Your task to perform on an android device: Search for seafood restaurants on Google Maps Image 0: 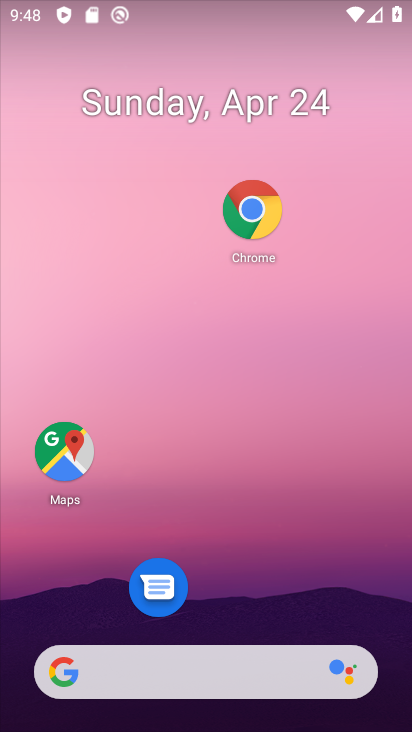
Step 0: drag from (208, 599) to (167, 135)
Your task to perform on an android device: Search for seafood restaurants on Google Maps Image 1: 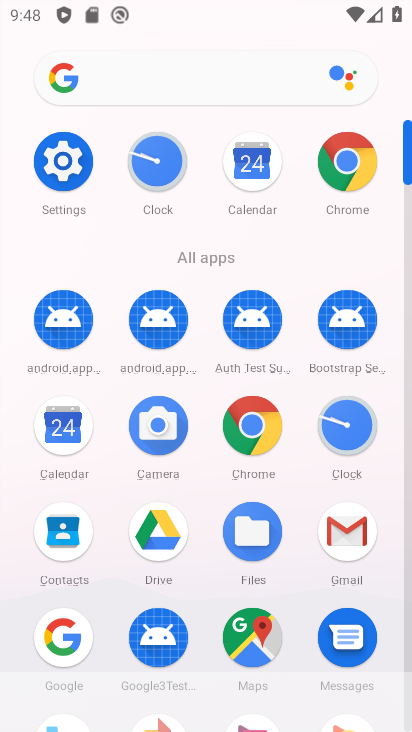
Step 1: click (251, 633)
Your task to perform on an android device: Search for seafood restaurants on Google Maps Image 2: 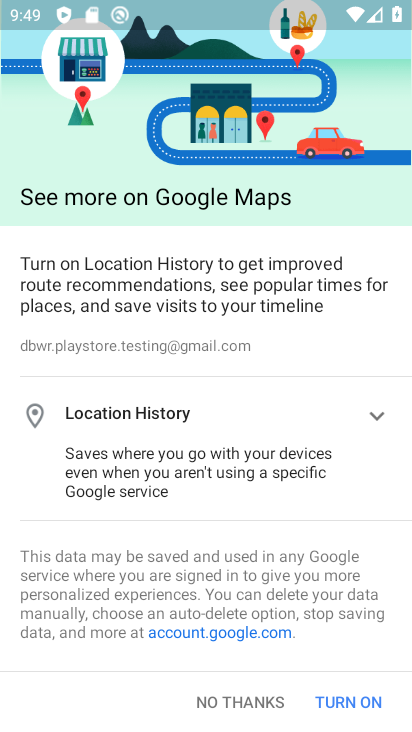
Step 2: click (342, 700)
Your task to perform on an android device: Search for seafood restaurants on Google Maps Image 3: 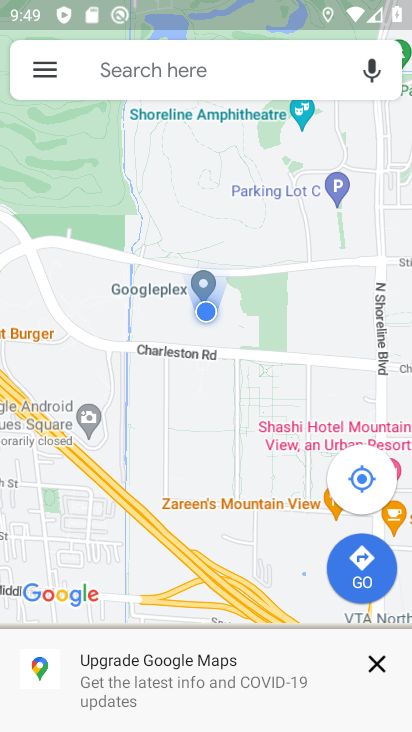
Step 3: click (118, 54)
Your task to perform on an android device: Search for seafood restaurants on Google Maps Image 4: 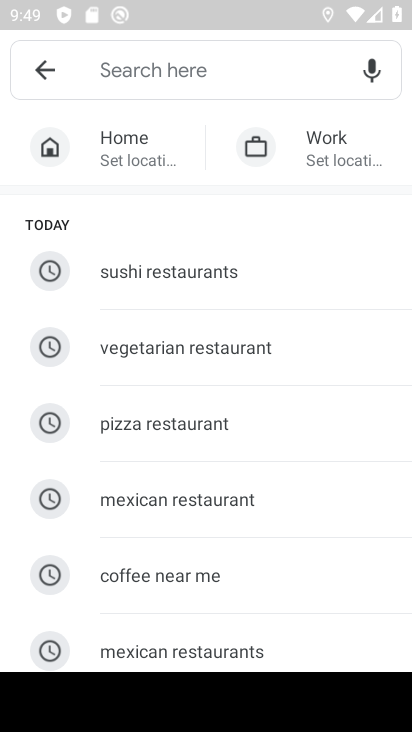
Step 4: type "seafood"
Your task to perform on an android device: Search for seafood restaurants on Google Maps Image 5: 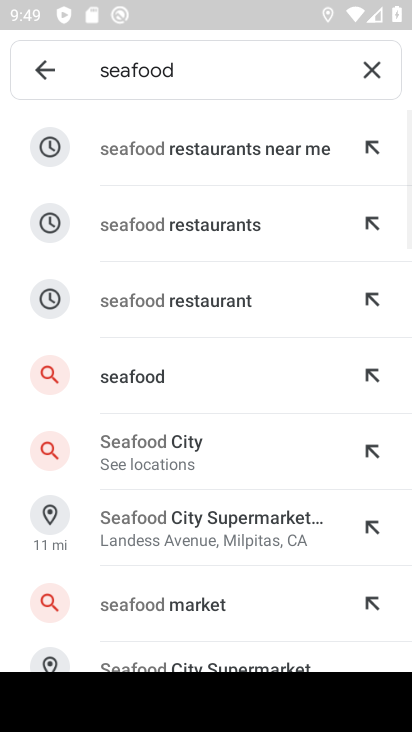
Step 5: click (205, 229)
Your task to perform on an android device: Search for seafood restaurants on Google Maps Image 6: 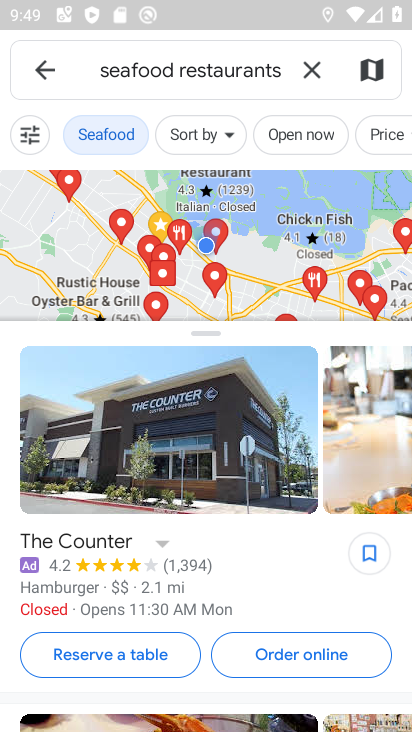
Step 6: task complete